Your task to perform on an android device: turn on javascript in the chrome app Image 0: 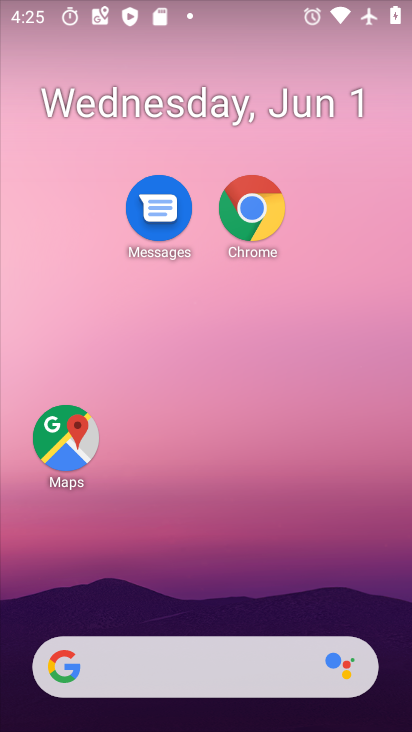
Step 0: click (237, 199)
Your task to perform on an android device: turn on javascript in the chrome app Image 1: 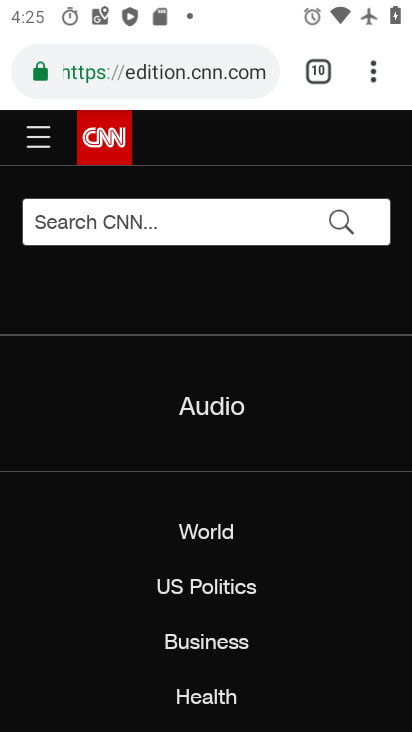
Step 1: drag from (375, 62) to (126, 578)
Your task to perform on an android device: turn on javascript in the chrome app Image 2: 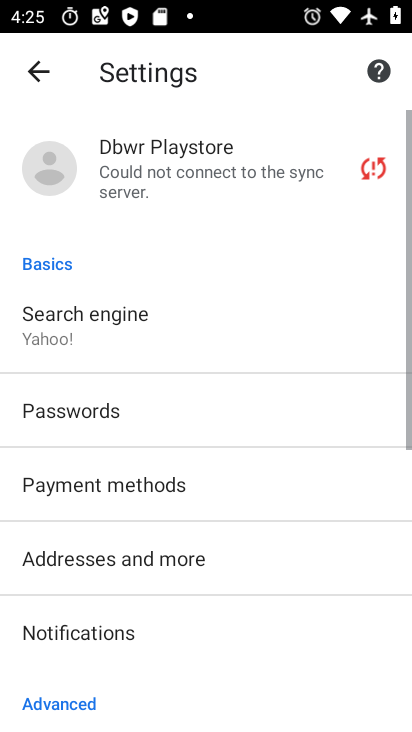
Step 2: drag from (164, 633) to (194, 309)
Your task to perform on an android device: turn on javascript in the chrome app Image 3: 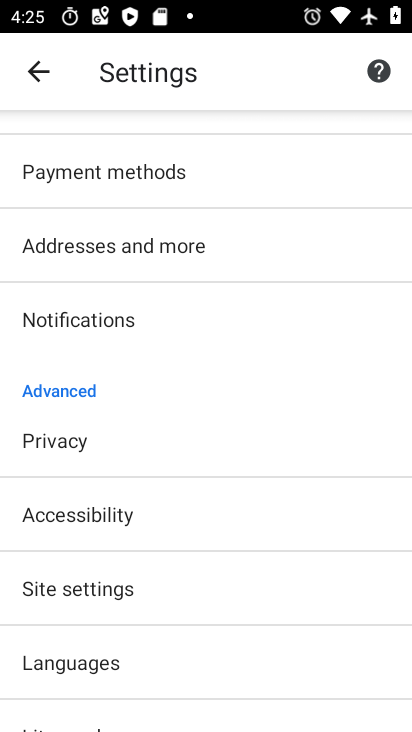
Step 3: drag from (173, 644) to (199, 471)
Your task to perform on an android device: turn on javascript in the chrome app Image 4: 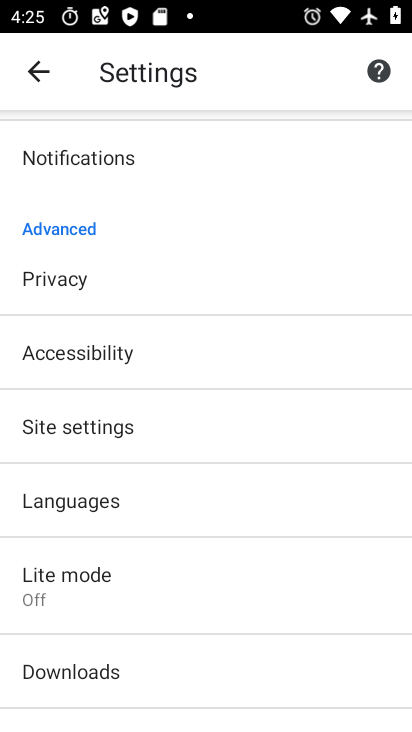
Step 4: click (170, 455)
Your task to perform on an android device: turn on javascript in the chrome app Image 5: 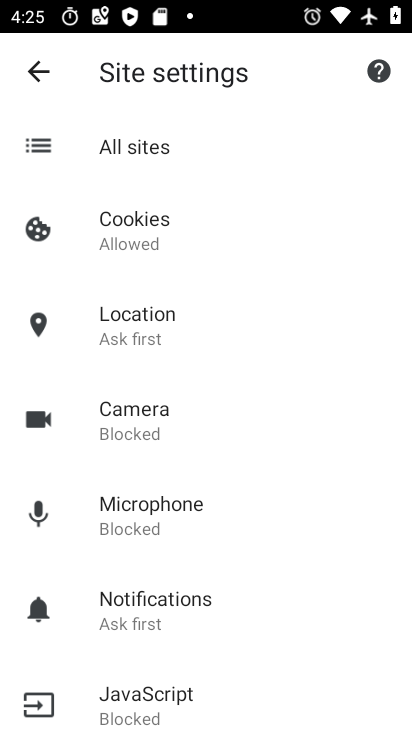
Step 5: click (196, 693)
Your task to perform on an android device: turn on javascript in the chrome app Image 6: 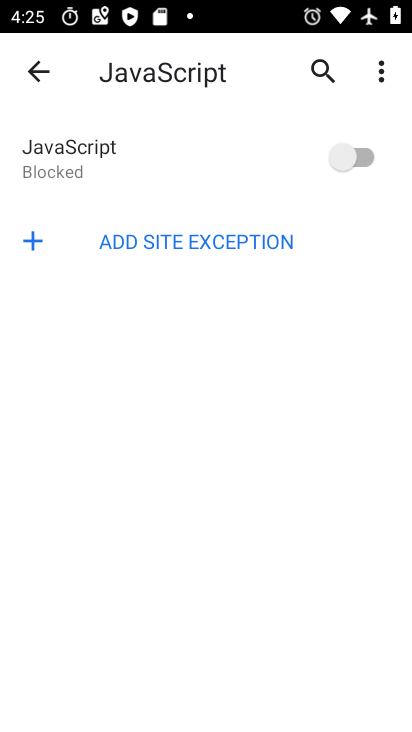
Step 6: click (356, 150)
Your task to perform on an android device: turn on javascript in the chrome app Image 7: 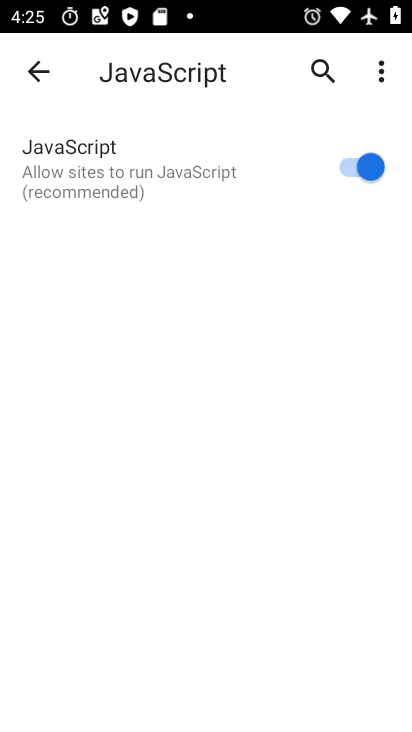
Step 7: task complete